Your task to perform on an android device: Check the weather Image 0: 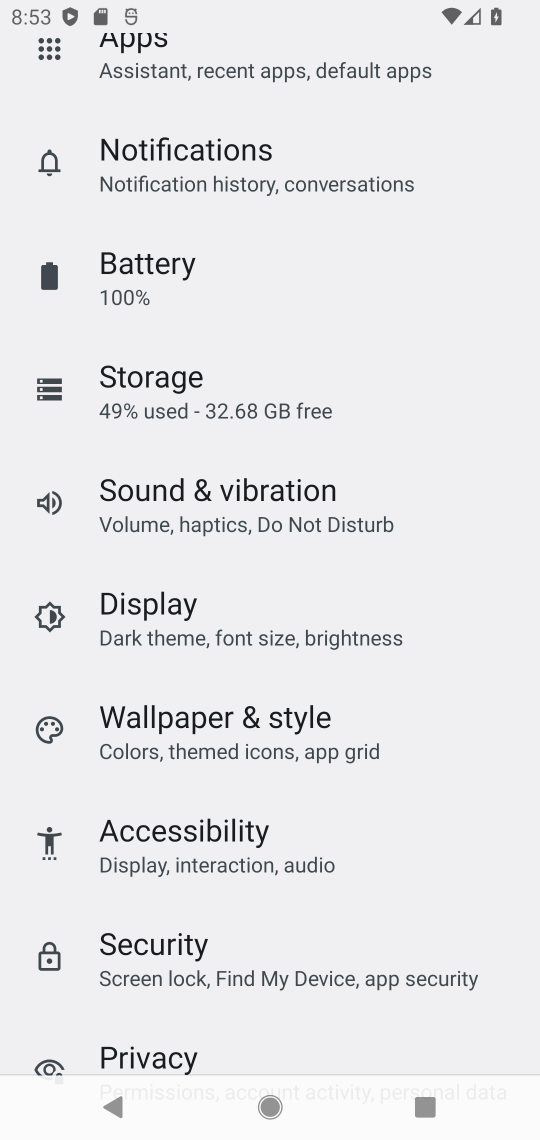
Step 0: press home button
Your task to perform on an android device: Check the weather Image 1: 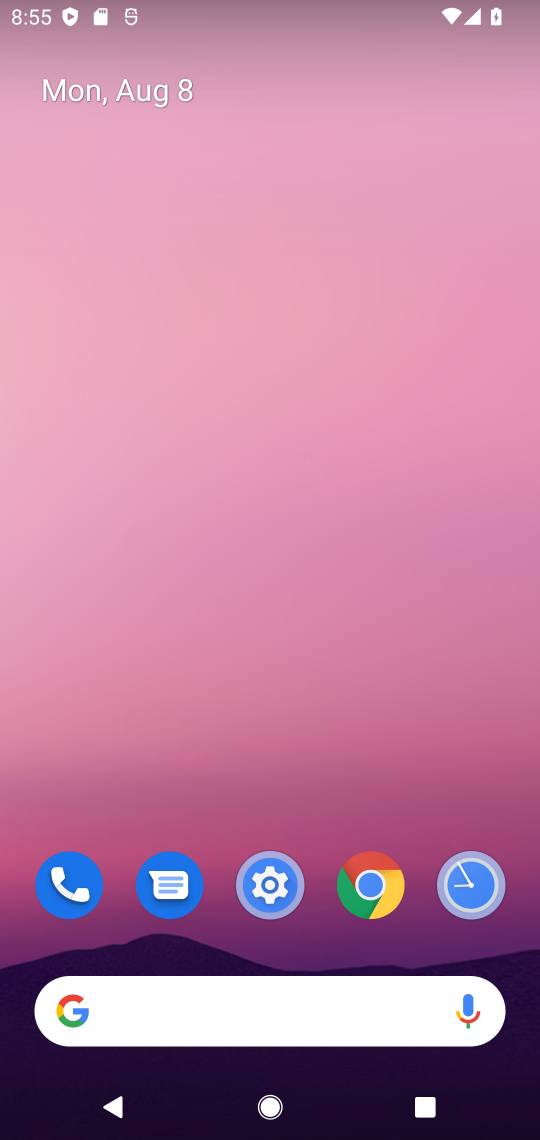
Step 1: click (405, 1023)
Your task to perform on an android device: Check the weather Image 2: 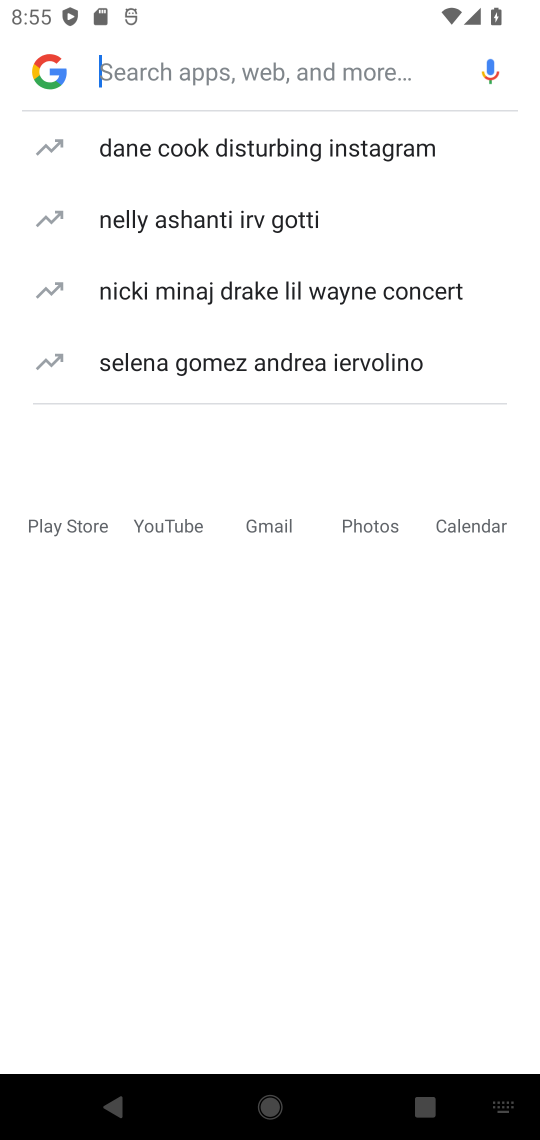
Step 2: type "weather"
Your task to perform on an android device: Check the weather Image 3: 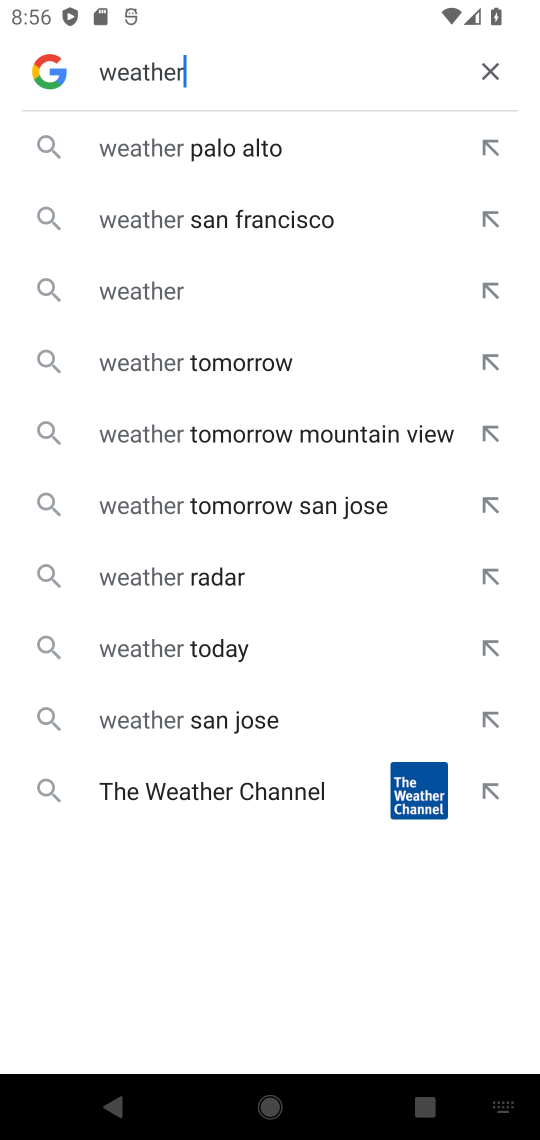
Step 3: click (182, 299)
Your task to perform on an android device: Check the weather Image 4: 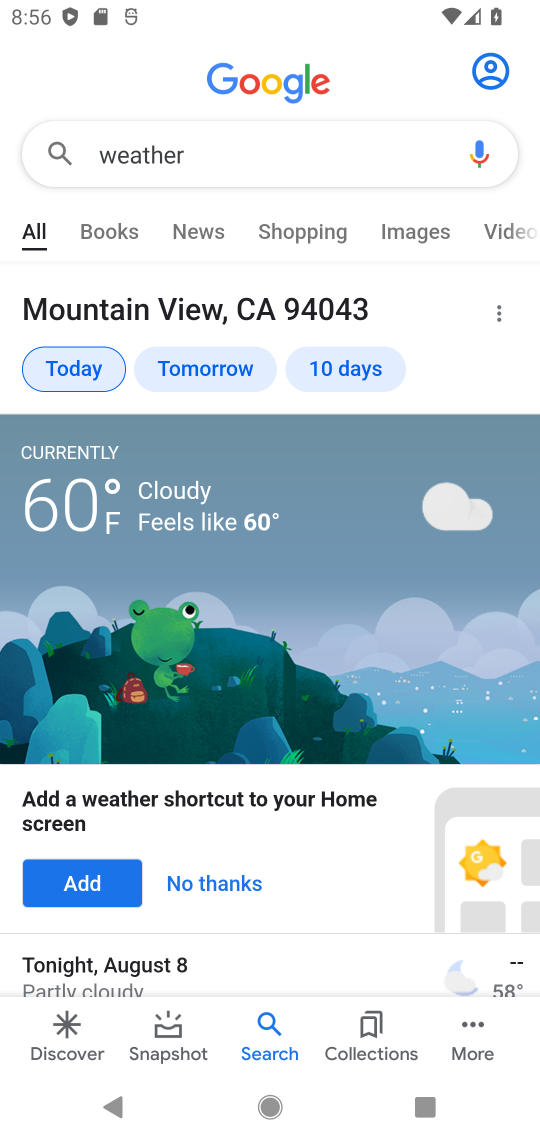
Step 4: task complete